Your task to perform on an android device: Go to Google maps Image 0: 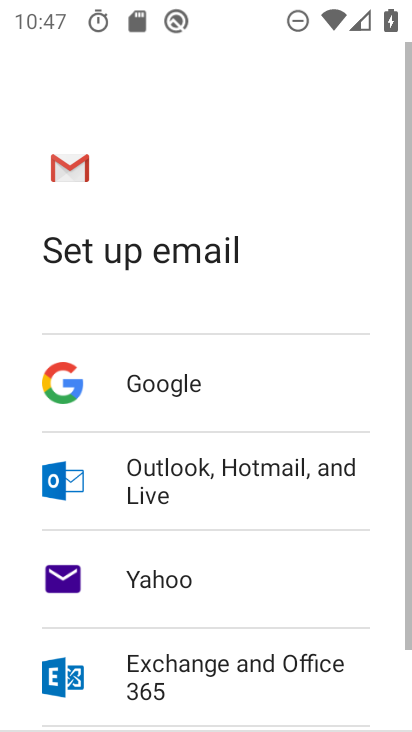
Step 0: press home button
Your task to perform on an android device: Go to Google maps Image 1: 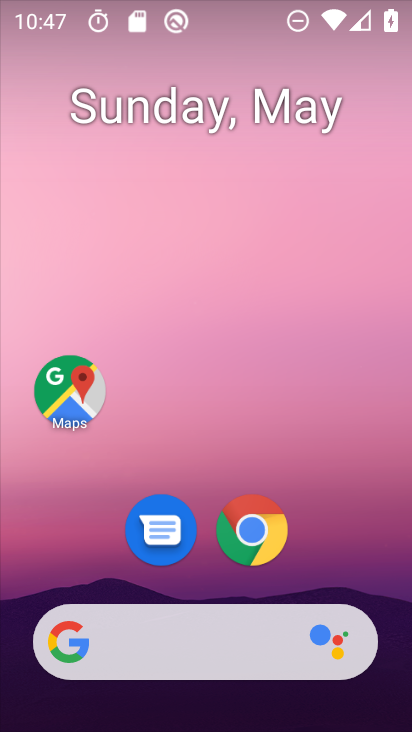
Step 1: drag from (227, 667) to (235, 81)
Your task to perform on an android device: Go to Google maps Image 2: 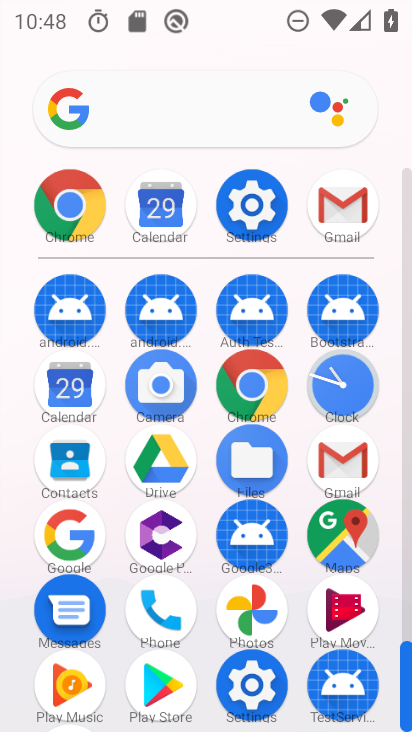
Step 2: click (343, 524)
Your task to perform on an android device: Go to Google maps Image 3: 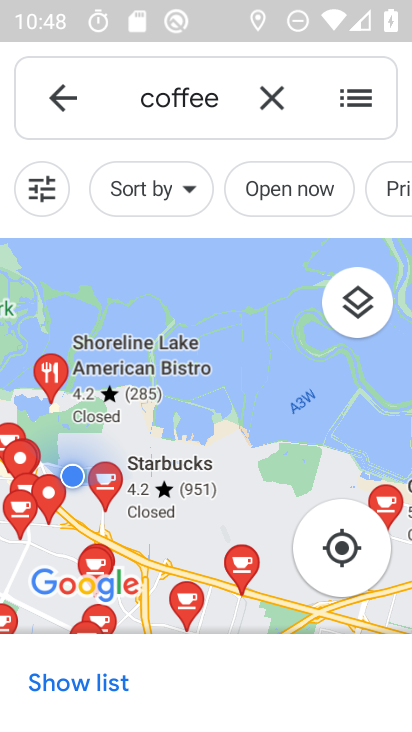
Step 3: click (53, 105)
Your task to perform on an android device: Go to Google maps Image 4: 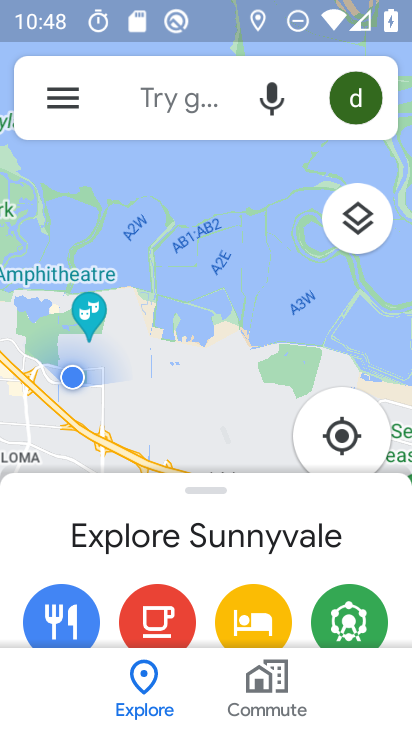
Step 4: click (153, 385)
Your task to perform on an android device: Go to Google maps Image 5: 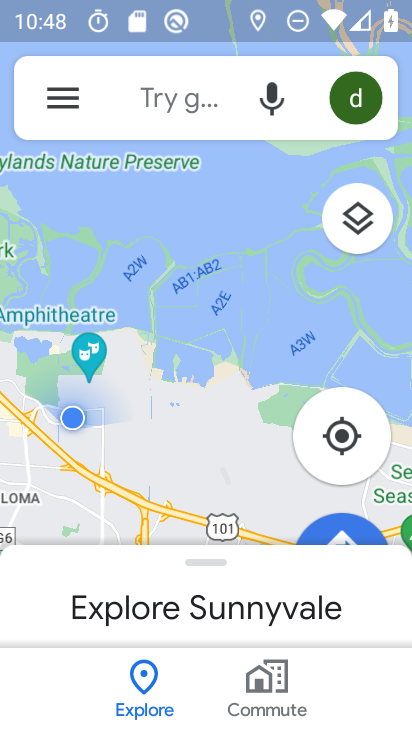
Step 5: task complete